Your task to perform on an android device: Search for a sofa on article.com Image 0: 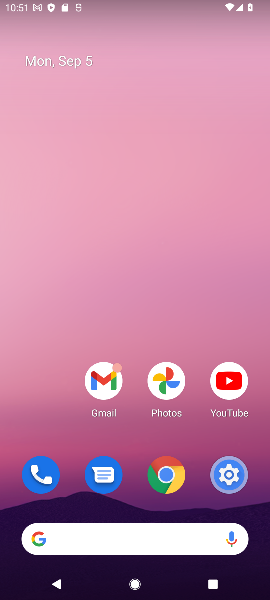
Step 0: click (122, 539)
Your task to perform on an android device: Search for a sofa on article.com Image 1: 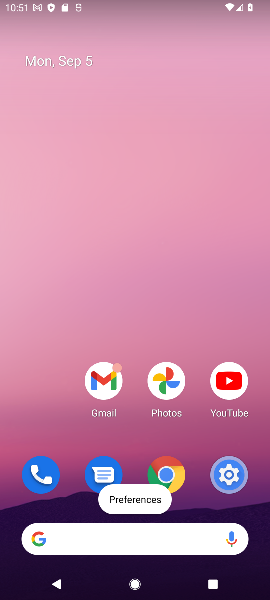
Step 1: click (122, 539)
Your task to perform on an android device: Search for a sofa on article.com Image 2: 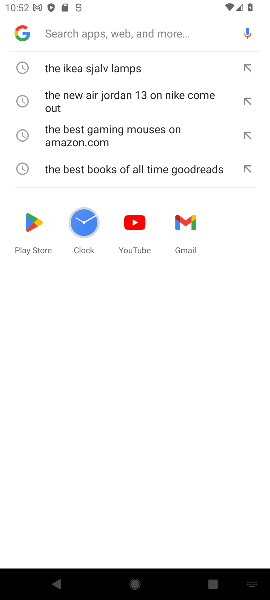
Step 2: type "a sofa on article.com"
Your task to perform on an android device: Search for a sofa on article.com Image 3: 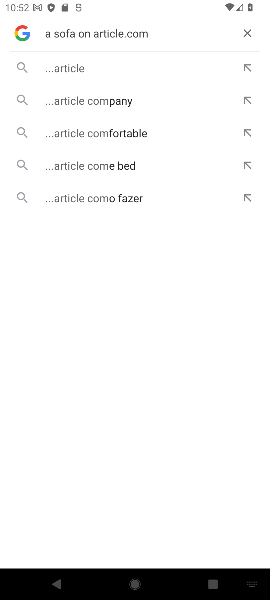
Step 3: click (61, 68)
Your task to perform on an android device: Search for a sofa on article.com Image 4: 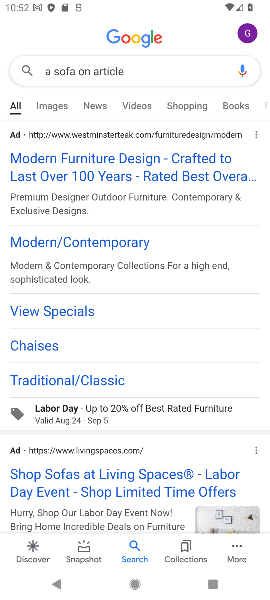
Step 4: task complete